Your task to perform on an android device: Open the web browser Image 0: 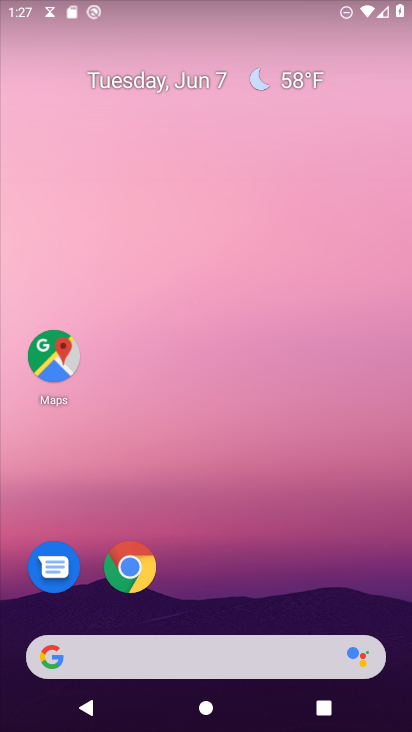
Step 0: click (130, 567)
Your task to perform on an android device: Open the web browser Image 1: 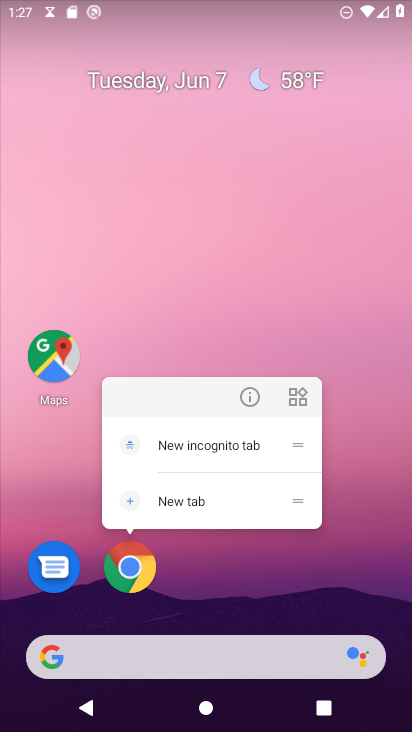
Step 1: click (142, 561)
Your task to perform on an android device: Open the web browser Image 2: 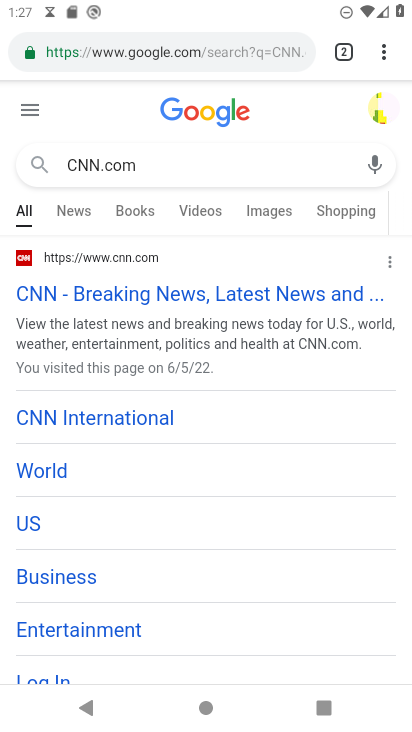
Step 2: task complete